Your task to perform on an android device: Open Amazon Image 0: 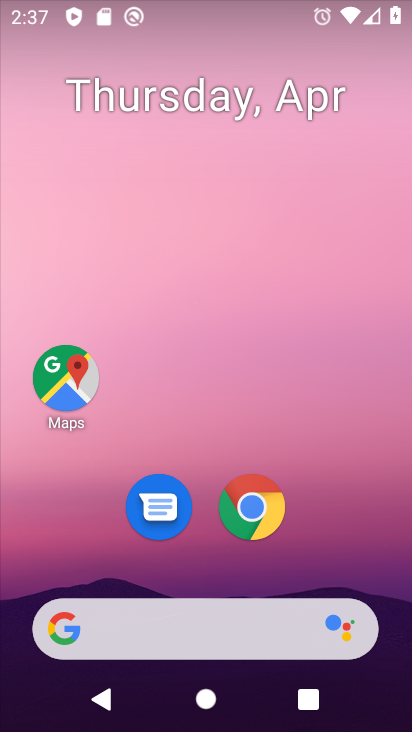
Step 0: drag from (376, 556) to (326, 192)
Your task to perform on an android device: Open Amazon Image 1: 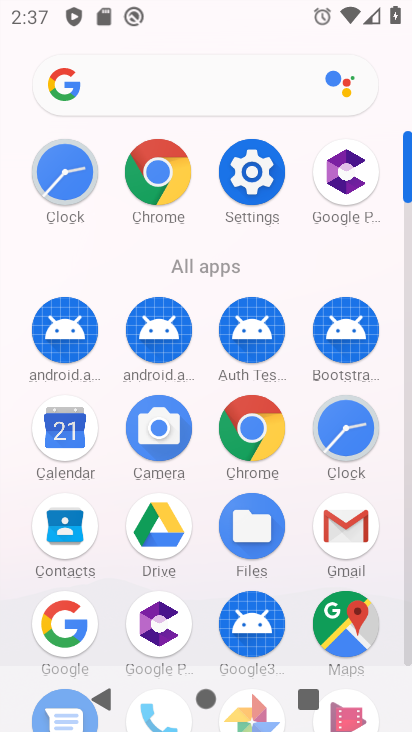
Step 1: click (264, 431)
Your task to perform on an android device: Open Amazon Image 2: 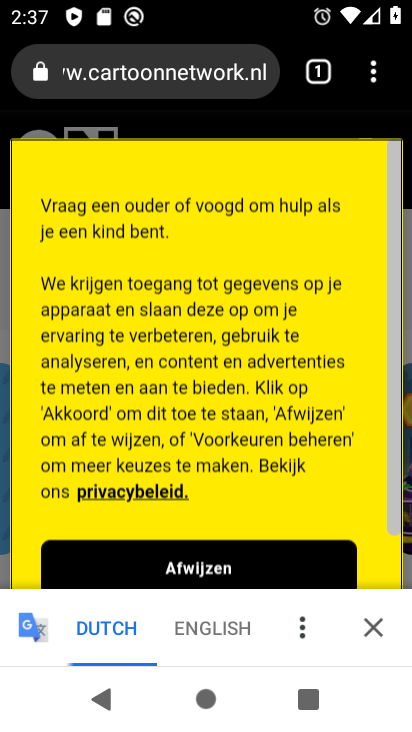
Step 2: click (312, 71)
Your task to perform on an android device: Open Amazon Image 3: 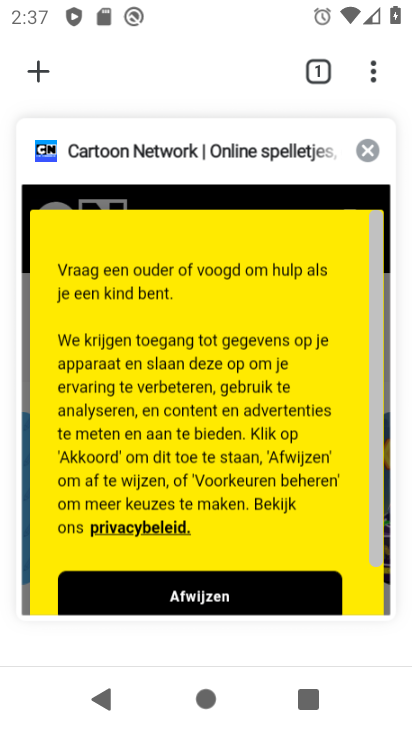
Step 3: click (35, 68)
Your task to perform on an android device: Open Amazon Image 4: 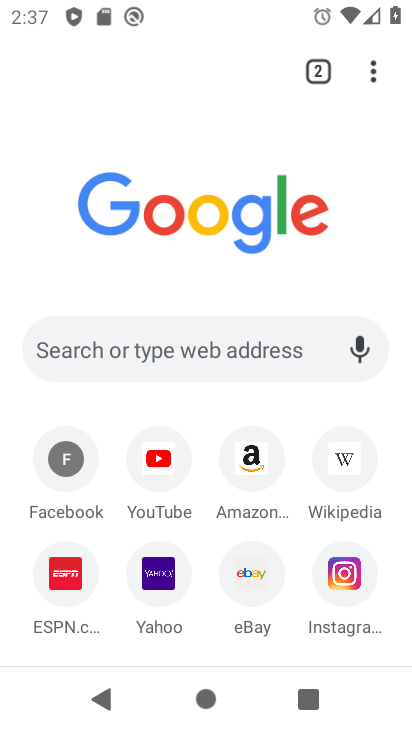
Step 4: click (262, 476)
Your task to perform on an android device: Open Amazon Image 5: 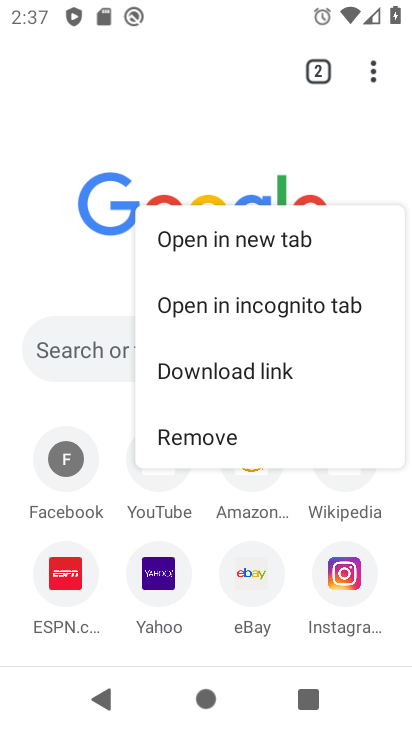
Step 5: click (257, 478)
Your task to perform on an android device: Open Amazon Image 6: 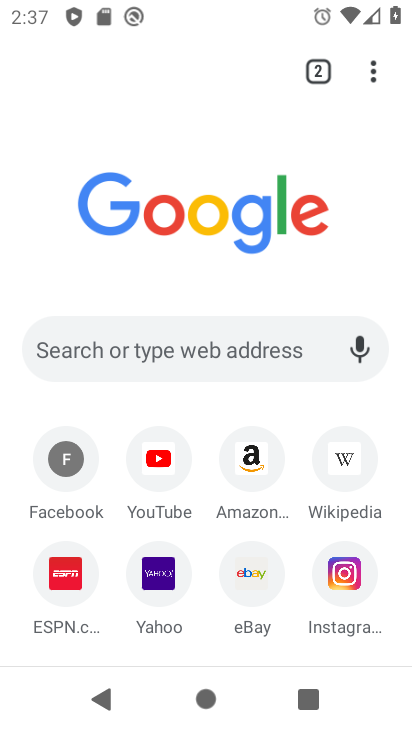
Step 6: click (250, 489)
Your task to perform on an android device: Open Amazon Image 7: 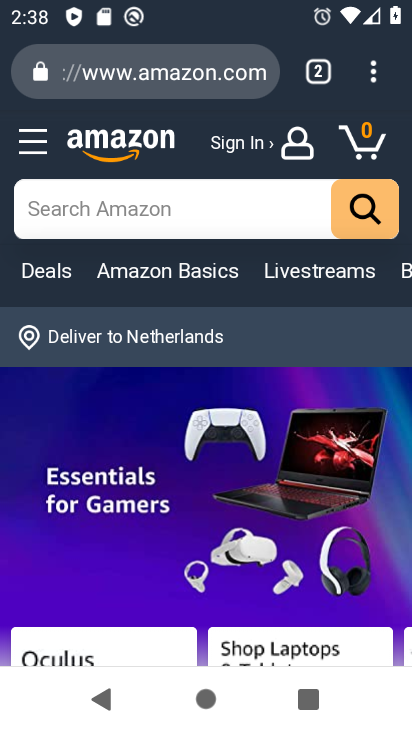
Step 7: task complete